Your task to perform on an android device: see sites visited before in the chrome app Image 0: 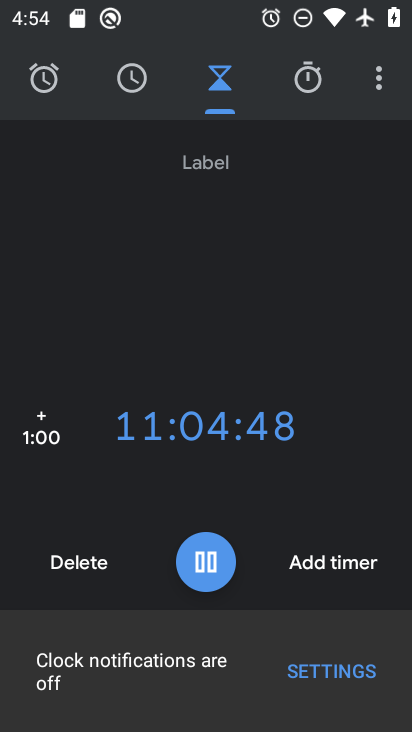
Step 0: press home button
Your task to perform on an android device: see sites visited before in the chrome app Image 1: 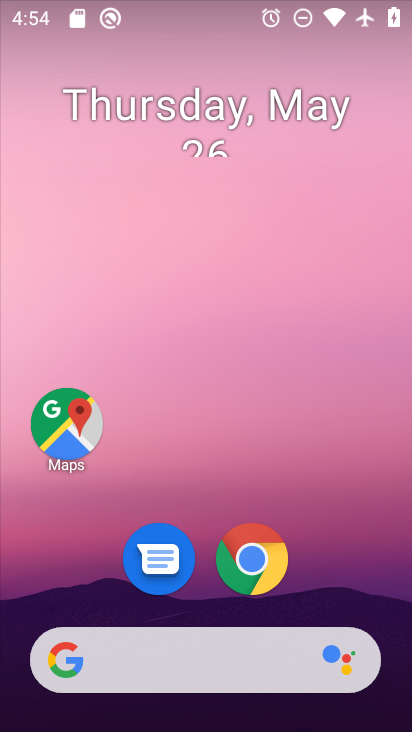
Step 1: click (256, 561)
Your task to perform on an android device: see sites visited before in the chrome app Image 2: 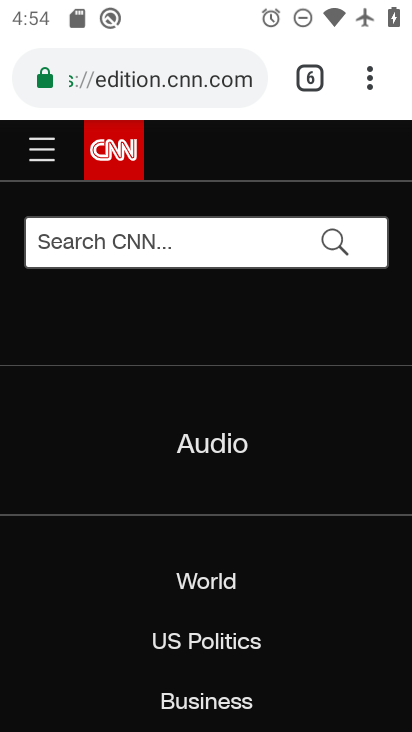
Step 2: click (381, 66)
Your task to perform on an android device: see sites visited before in the chrome app Image 3: 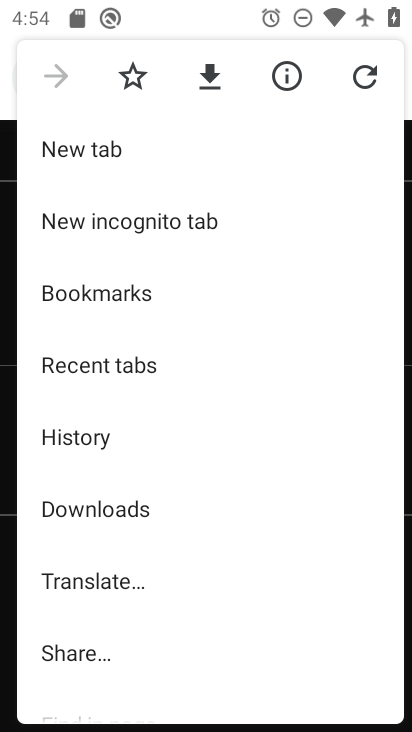
Step 3: click (127, 429)
Your task to perform on an android device: see sites visited before in the chrome app Image 4: 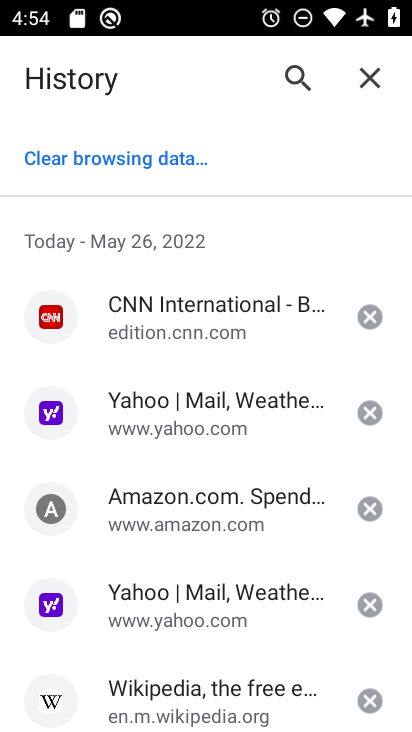
Step 4: task complete